Your task to perform on an android device: Set the phone to "Do not disturb". Image 0: 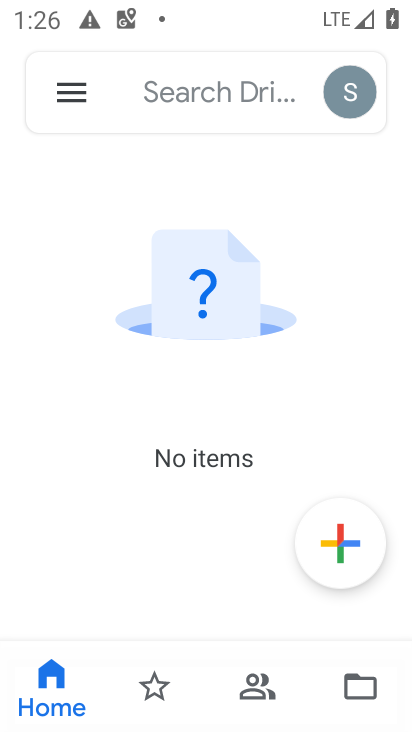
Step 0: press back button
Your task to perform on an android device: Set the phone to "Do not disturb". Image 1: 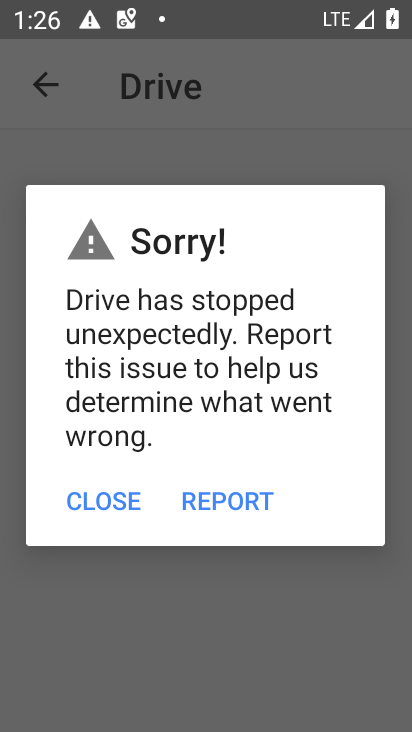
Step 1: press home button
Your task to perform on an android device: Set the phone to "Do not disturb". Image 2: 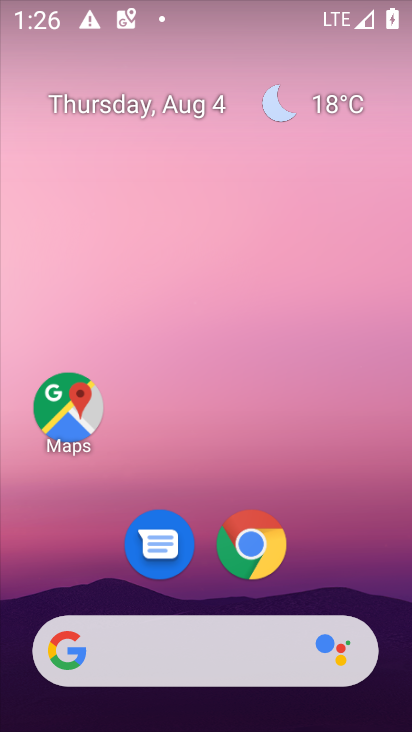
Step 2: drag from (347, 647) to (308, 56)
Your task to perform on an android device: Set the phone to "Do not disturb". Image 3: 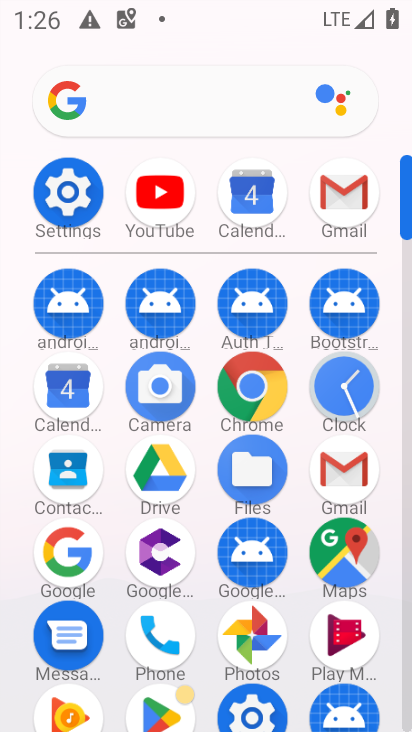
Step 3: click (62, 189)
Your task to perform on an android device: Set the phone to "Do not disturb". Image 4: 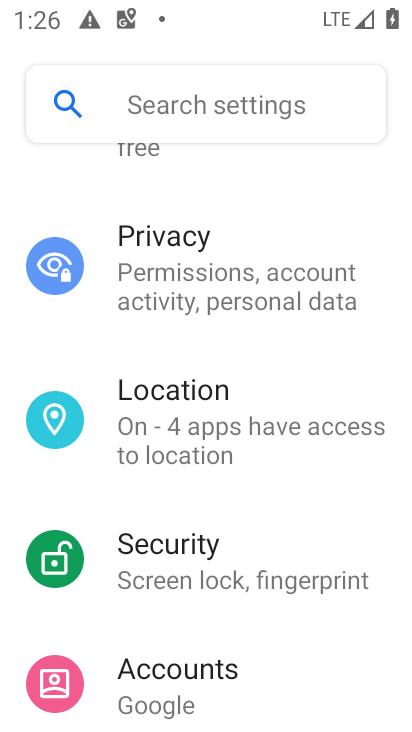
Step 4: drag from (278, 675) to (258, 282)
Your task to perform on an android device: Set the phone to "Do not disturb". Image 5: 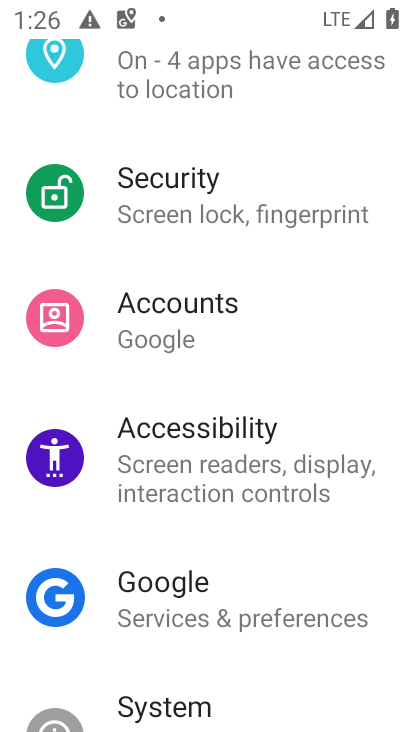
Step 5: drag from (283, 661) to (269, 362)
Your task to perform on an android device: Set the phone to "Do not disturb". Image 6: 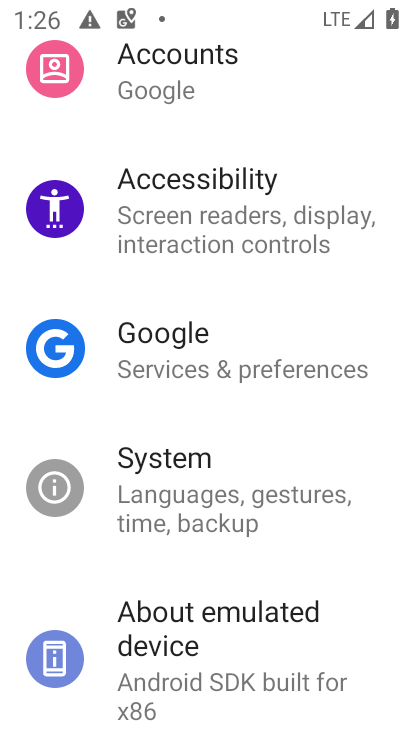
Step 6: click (142, 639)
Your task to perform on an android device: Set the phone to "Do not disturb". Image 7: 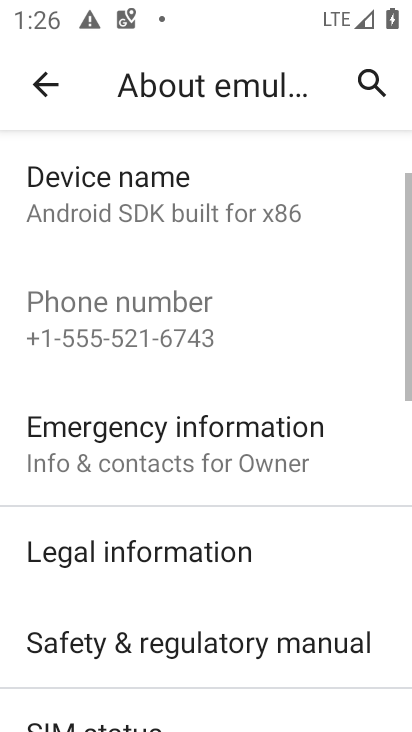
Step 7: click (37, 69)
Your task to perform on an android device: Set the phone to "Do not disturb". Image 8: 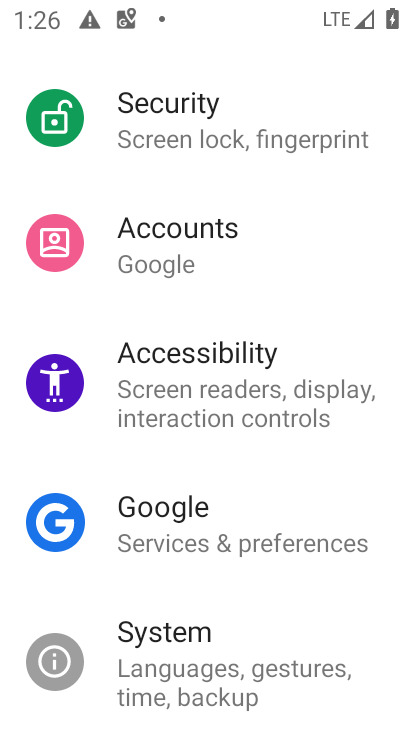
Step 8: drag from (269, 158) to (299, 623)
Your task to perform on an android device: Set the phone to "Do not disturb". Image 9: 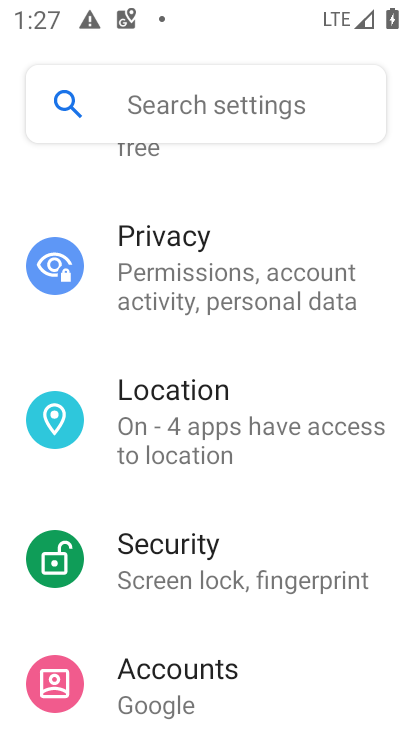
Step 9: drag from (230, 229) to (249, 642)
Your task to perform on an android device: Set the phone to "Do not disturb". Image 10: 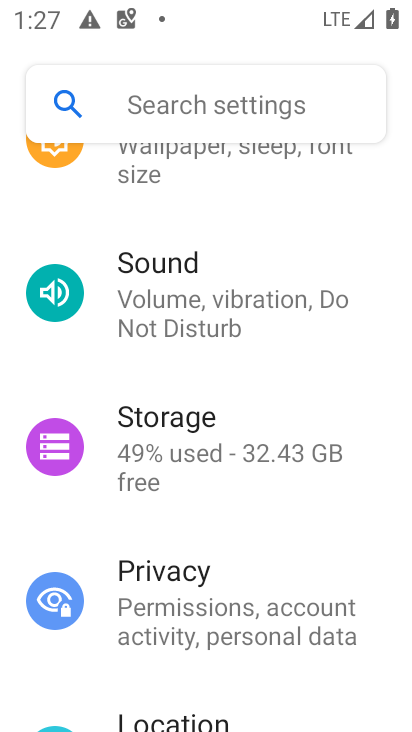
Step 10: click (135, 277)
Your task to perform on an android device: Set the phone to "Do not disturb". Image 11: 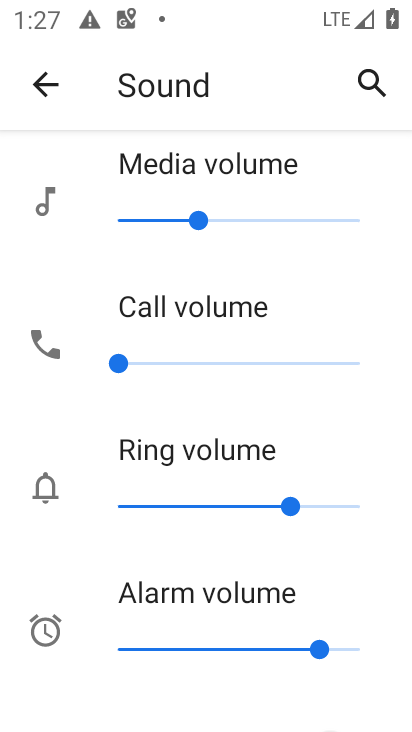
Step 11: drag from (249, 636) to (251, 276)
Your task to perform on an android device: Set the phone to "Do not disturb". Image 12: 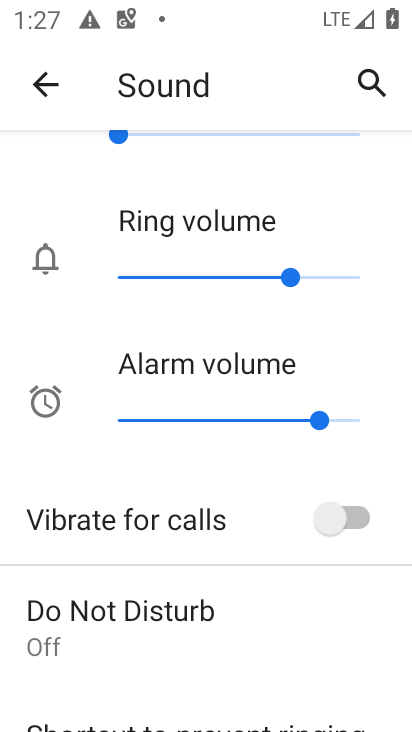
Step 12: drag from (186, 677) to (206, 352)
Your task to perform on an android device: Set the phone to "Do not disturb". Image 13: 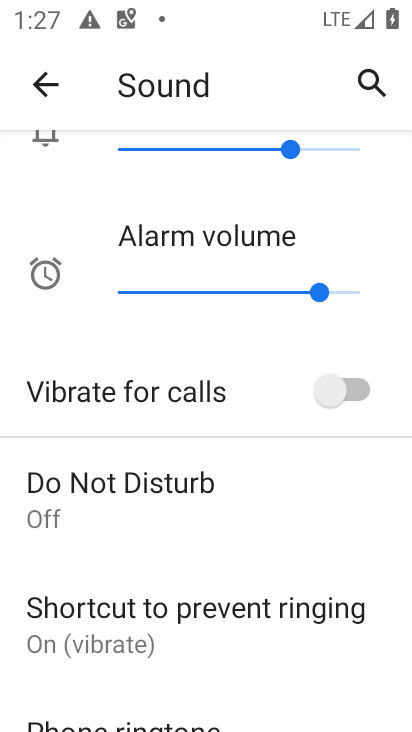
Step 13: click (79, 484)
Your task to perform on an android device: Set the phone to "Do not disturb". Image 14: 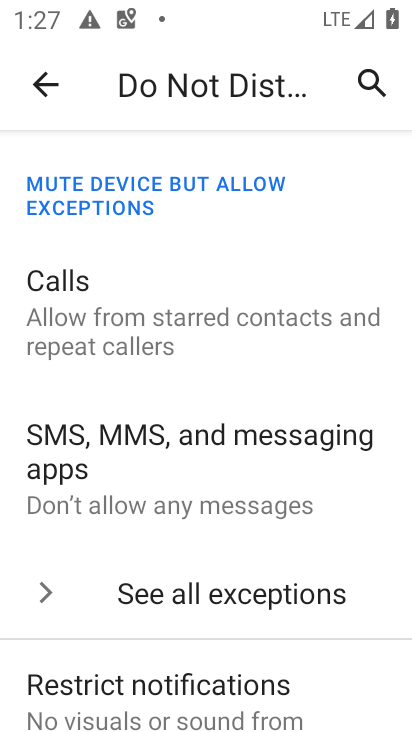
Step 14: drag from (135, 627) to (172, 167)
Your task to perform on an android device: Set the phone to "Do not disturb". Image 15: 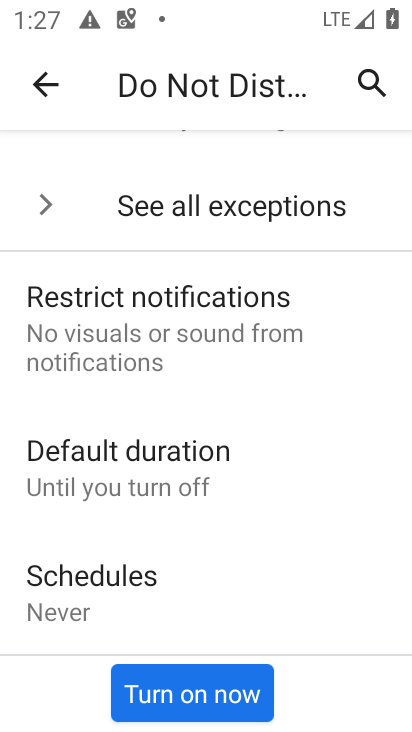
Step 15: click (182, 686)
Your task to perform on an android device: Set the phone to "Do not disturb". Image 16: 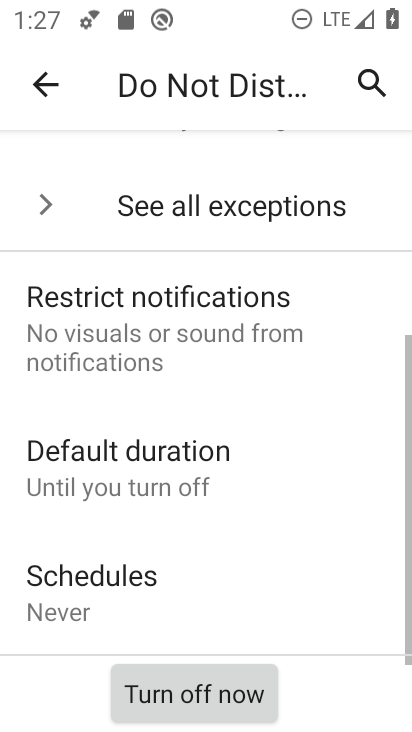
Step 16: click (211, 692)
Your task to perform on an android device: Set the phone to "Do not disturb". Image 17: 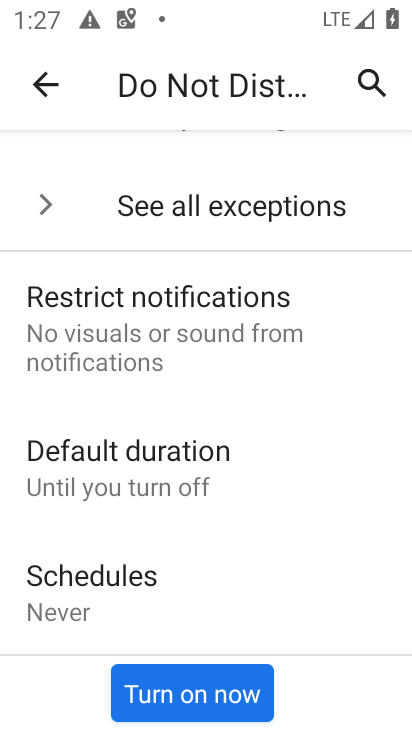
Step 17: task complete